Your task to perform on an android device: Do I have any events tomorrow? Image 0: 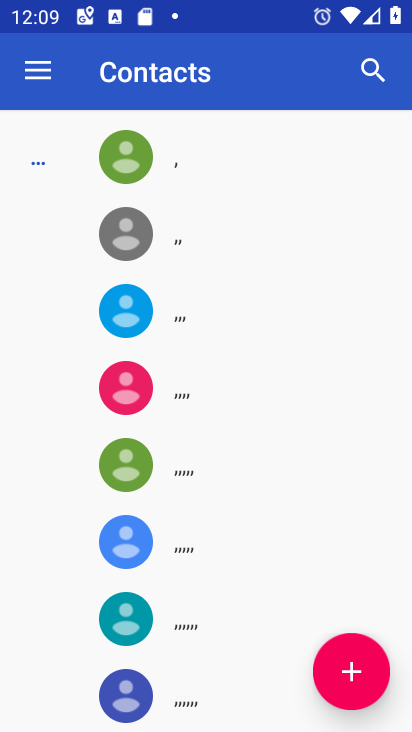
Step 0: press home button
Your task to perform on an android device: Do I have any events tomorrow? Image 1: 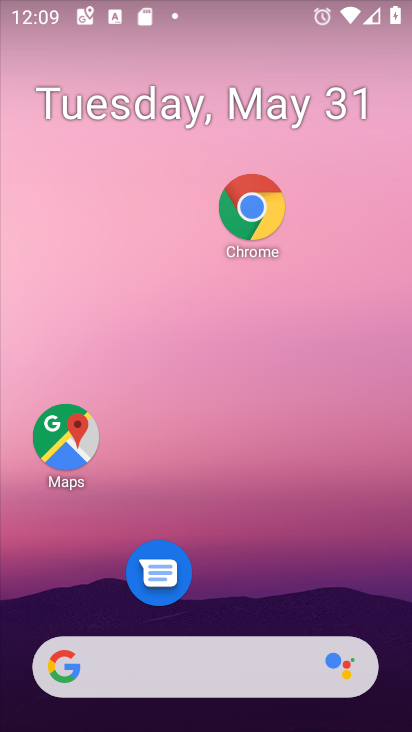
Step 1: drag from (221, 653) to (233, 81)
Your task to perform on an android device: Do I have any events tomorrow? Image 2: 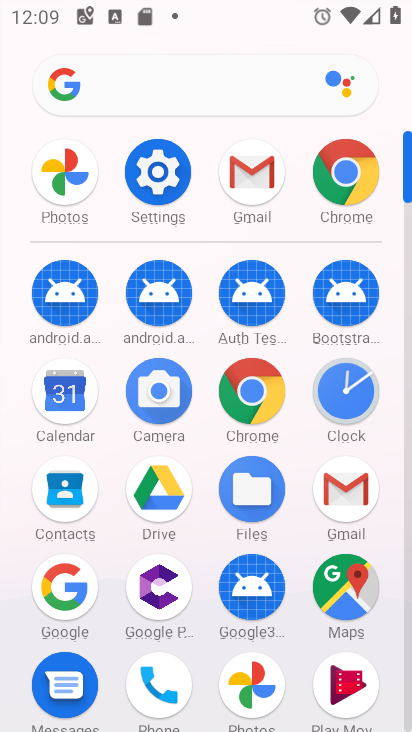
Step 2: click (67, 403)
Your task to perform on an android device: Do I have any events tomorrow? Image 3: 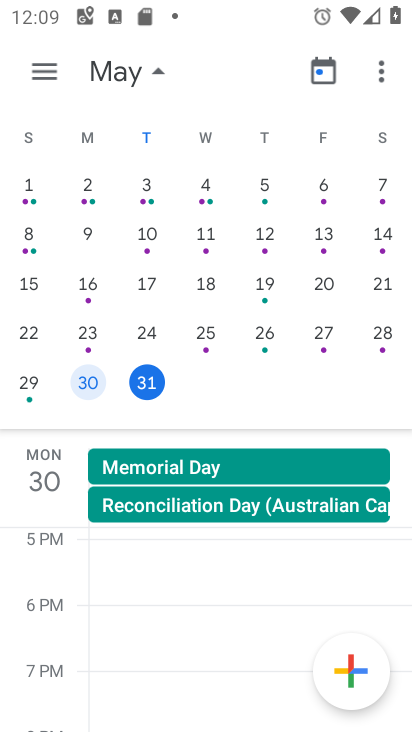
Step 3: click (138, 377)
Your task to perform on an android device: Do I have any events tomorrow? Image 4: 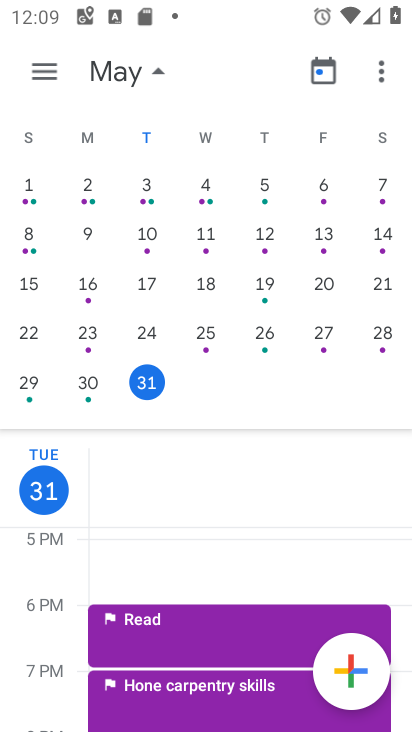
Step 4: task complete